Your task to perform on an android device: read, delete, or share a saved page in the chrome app Image 0: 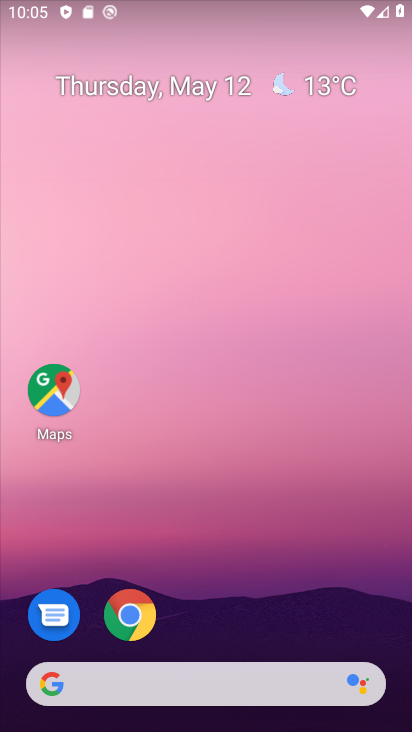
Step 0: drag from (306, 627) to (296, 223)
Your task to perform on an android device: read, delete, or share a saved page in the chrome app Image 1: 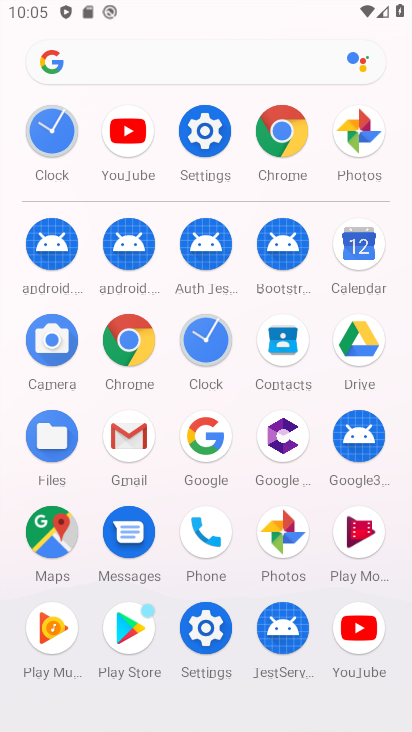
Step 1: click (280, 118)
Your task to perform on an android device: read, delete, or share a saved page in the chrome app Image 2: 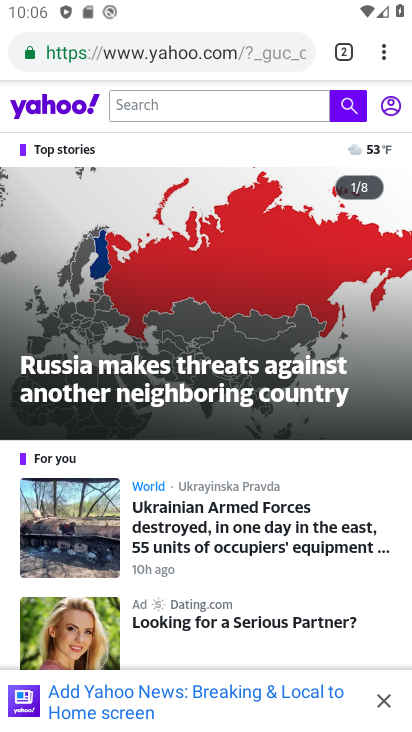
Step 2: task complete